Your task to perform on an android device: Search for vegetarian restaurants on Maps Image 0: 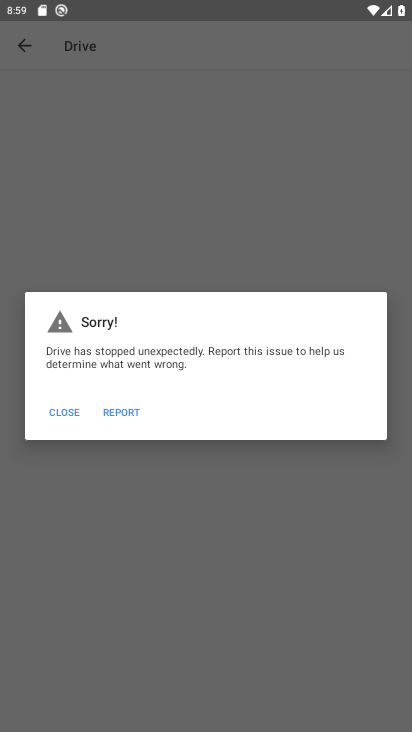
Step 0: press home button
Your task to perform on an android device: Search for vegetarian restaurants on Maps Image 1: 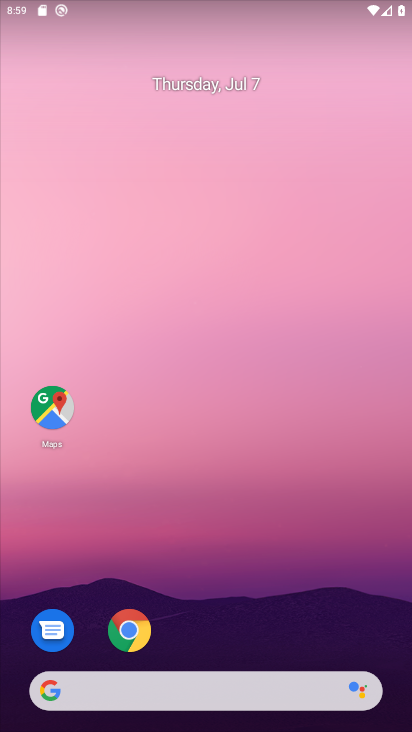
Step 1: click (45, 400)
Your task to perform on an android device: Search for vegetarian restaurants on Maps Image 2: 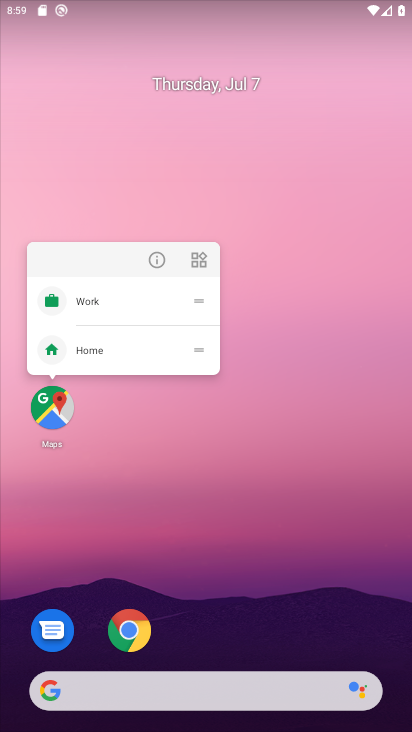
Step 2: click (67, 397)
Your task to perform on an android device: Search for vegetarian restaurants on Maps Image 3: 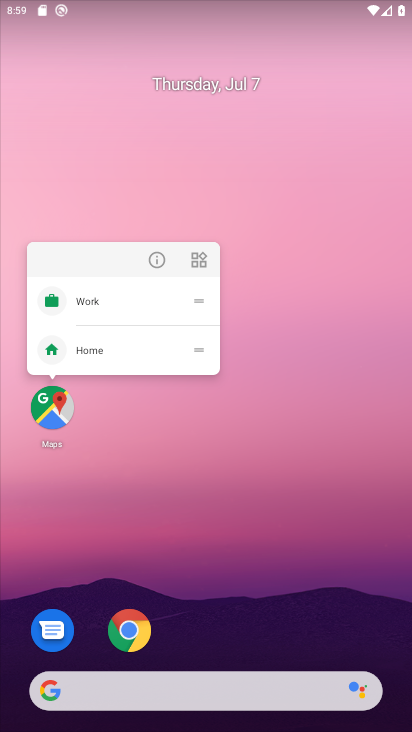
Step 3: click (56, 401)
Your task to perform on an android device: Search for vegetarian restaurants on Maps Image 4: 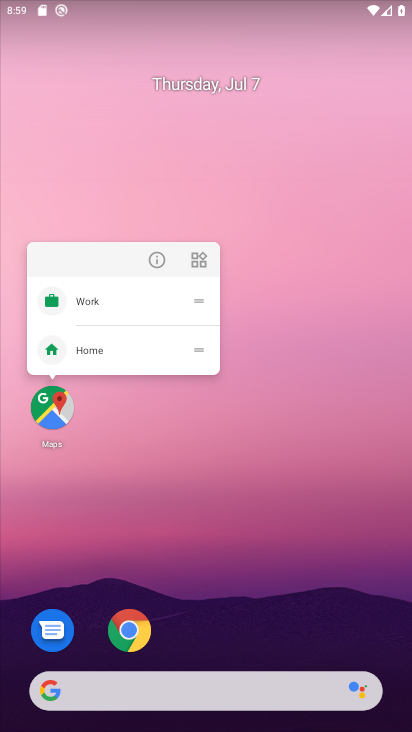
Step 4: click (34, 418)
Your task to perform on an android device: Search for vegetarian restaurants on Maps Image 5: 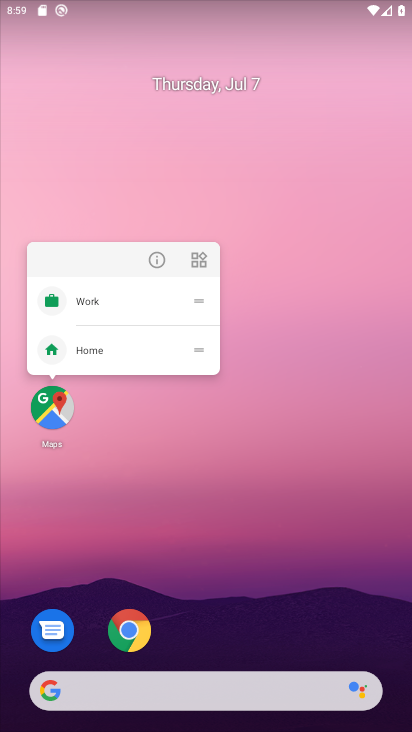
Step 5: click (46, 410)
Your task to perform on an android device: Search for vegetarian restaurants on Maps Image 6: 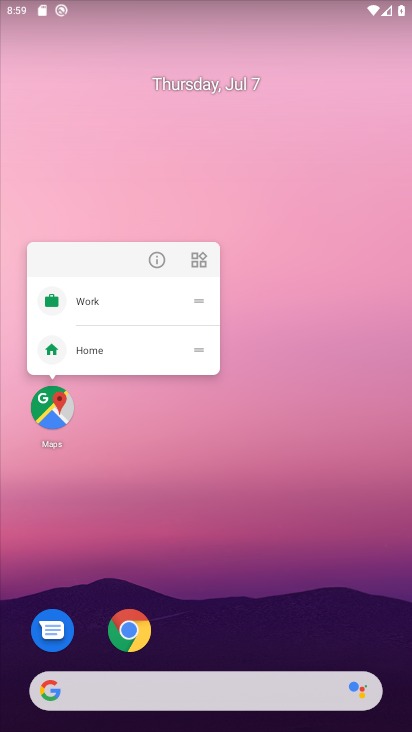
Step 6: click (49, 425)
Your task to perform on an android device: Search for vegetarian restaurants on Maps Image 7: 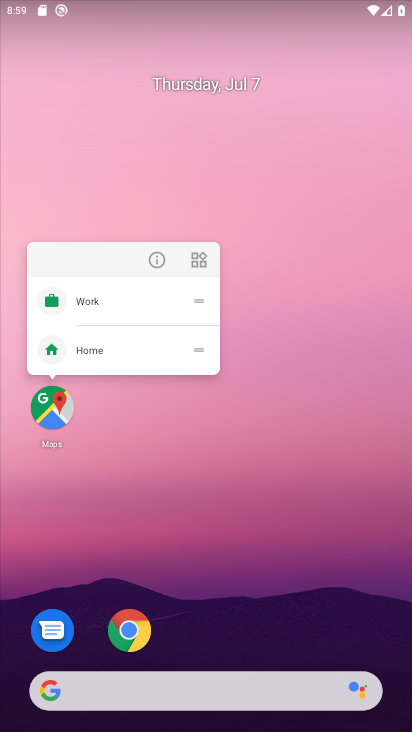
Step 7: click (42, 424)
Your task to perform on an android device: Search for vegetarian restaurants on Maps Image 8: 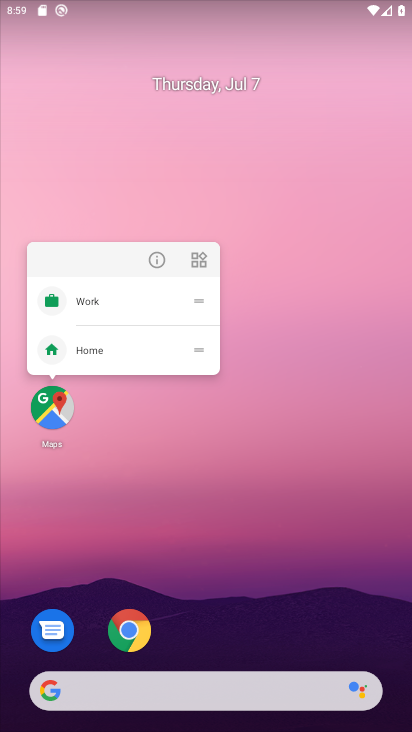
Step 8: click (44, 395)
Your task to perform on an android device: Search for vegetarian restaurants on Maps Image 9: 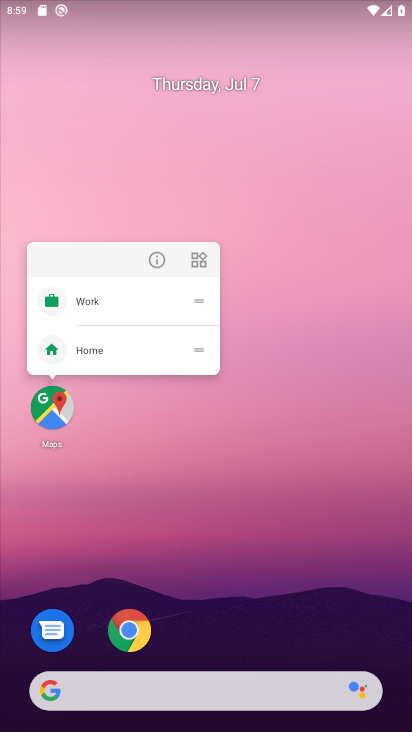
Step 9: click (43, 405)
Your task to perform on an android device: Search for vegetarian restaurants on Maps Image 10: 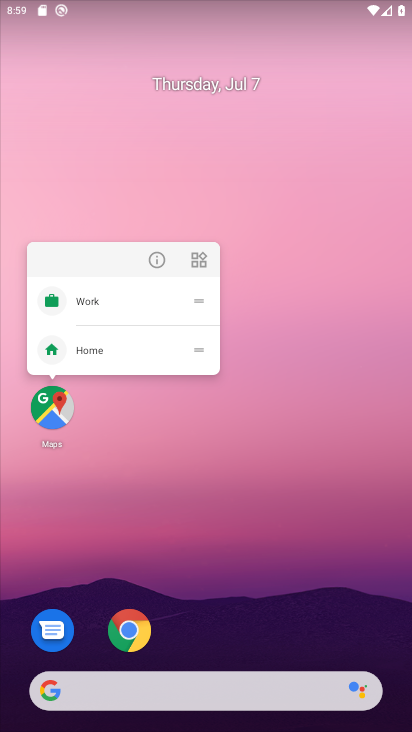
Step 10: click (35, 416)
Your task to perform on an android device: Search for vegetarian restaurants on Maps Image 11: 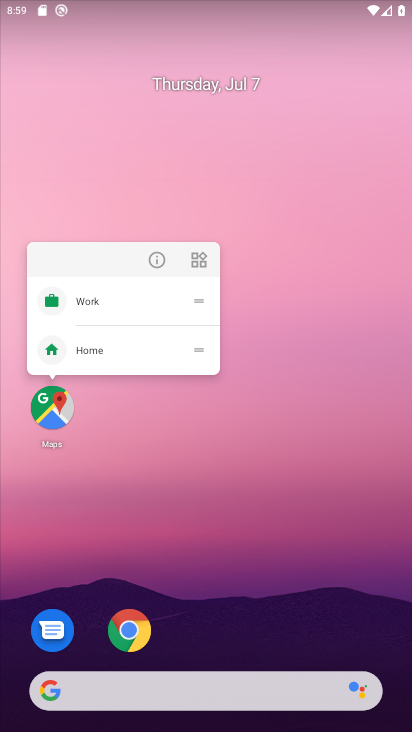
Step 11: click (52, 409)
Your task to perform on an android device: Search for vegetarian restaurants on Maps Image 12: 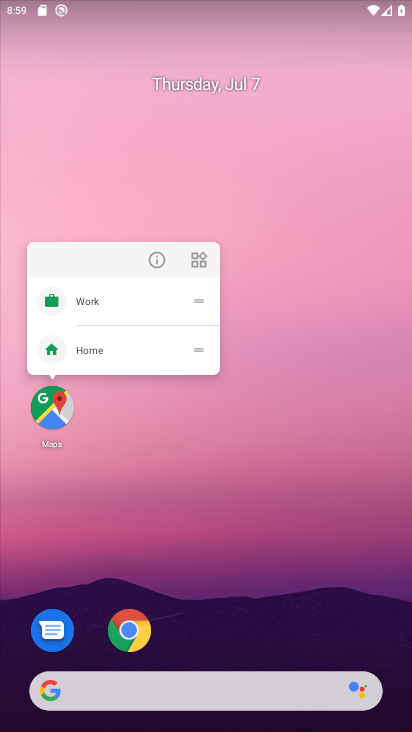
Step 12: click (49, 396)
Your task to perform on an android device: Search for vegetarian restaurants on Maps Image 13: 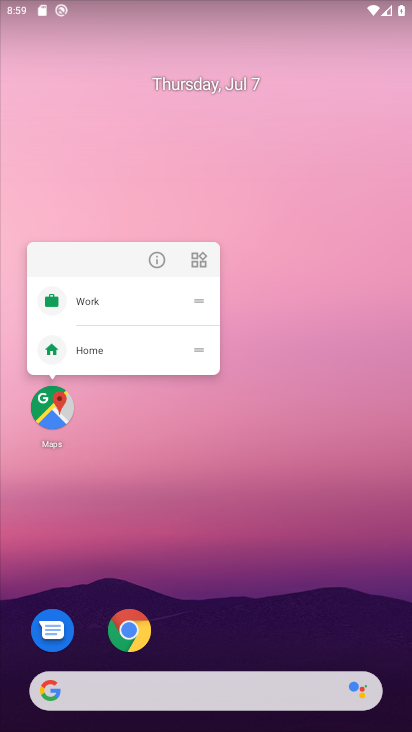
Step 13: click (50, 443)
Your task to perform on an android device: Search for vegetarian restaurants on Maps Image 14: 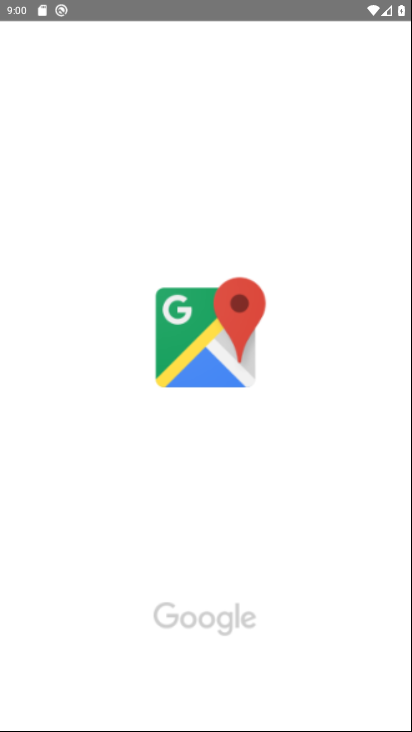
Step 14: task complete